Your task to perform on an android device: Go to ESPN.com Image 0: 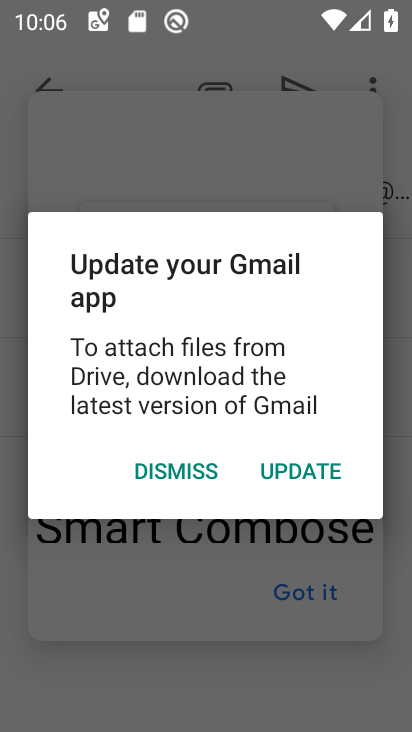
Step 0: press home button
Your task to perform on an android device: Go to ESPN.com Image 1: 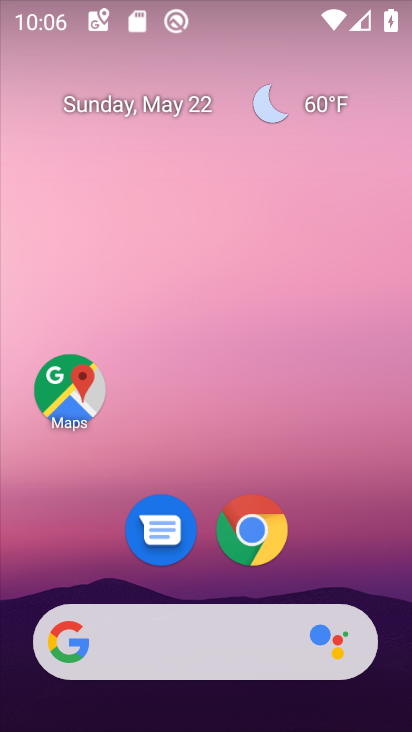
Step 1: click (271, 527)
Your task to perform on an android device: Go to ESPN.com Image 2: 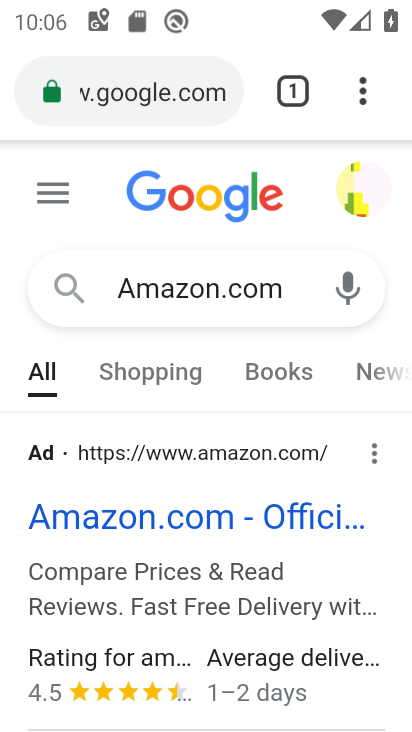
Step 2: click (230, 94)
Your task to perform on an android device: Go to ESPN.com Image 3: 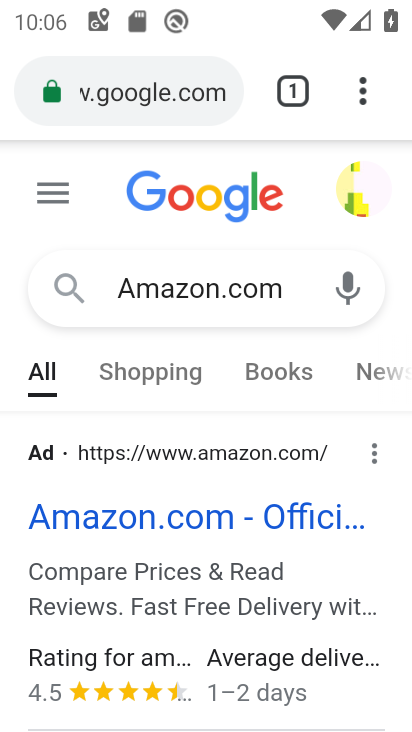
Step 3: click (225, 93)
Your task to perform on an android device: Go to ESPN.com Image 4: 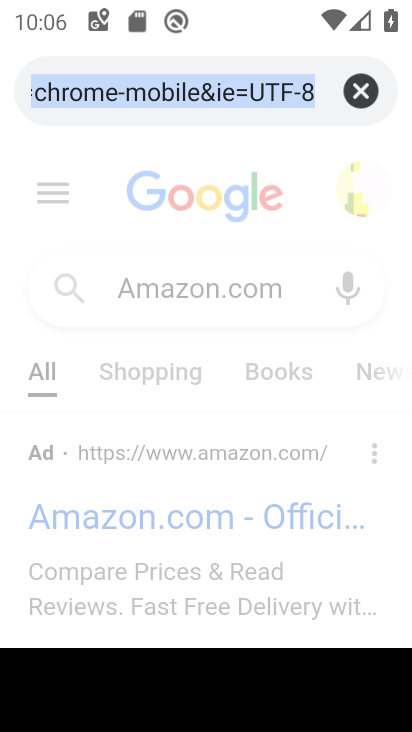
Step 4: click (363, 86)
Your task to perform on an android device: Go to ESPN.com Image 5: 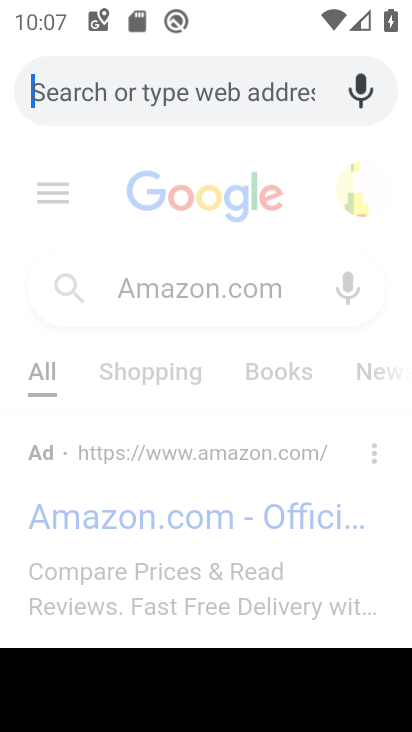
Step 5: type "ESPN.com"
Your task to perform on an android device: Go to ESPN.com Image 6: 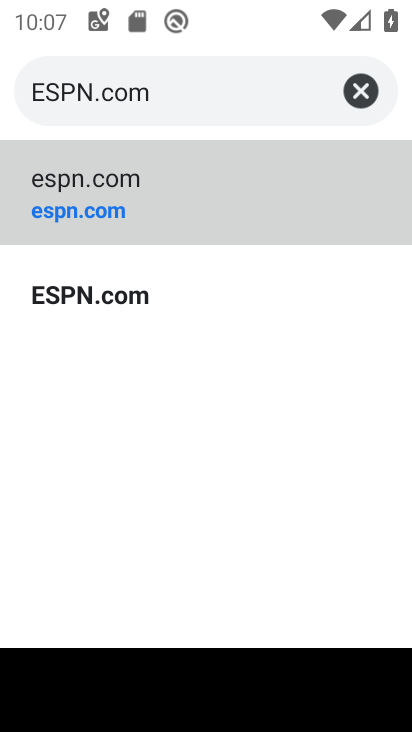
Step 6: click (104, 287)
Your task to perform on an android device: Go to ESPN.com Image 7: 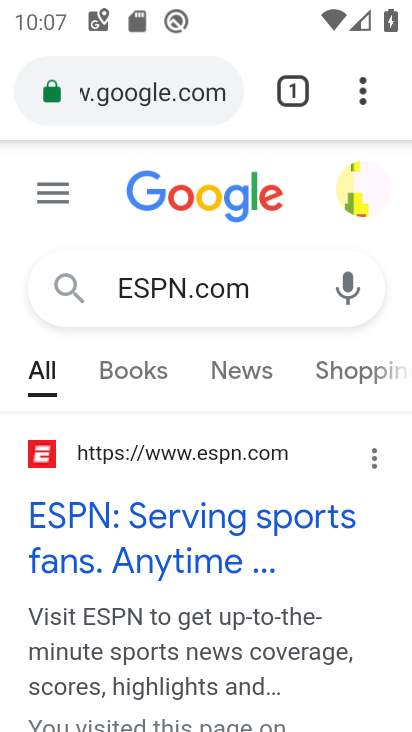
Step 7: task complete